Your task to perform on an android device: View the shopping cart on amazon. Add sony triple a to the cart on amazon, then select checkout. Image 0: 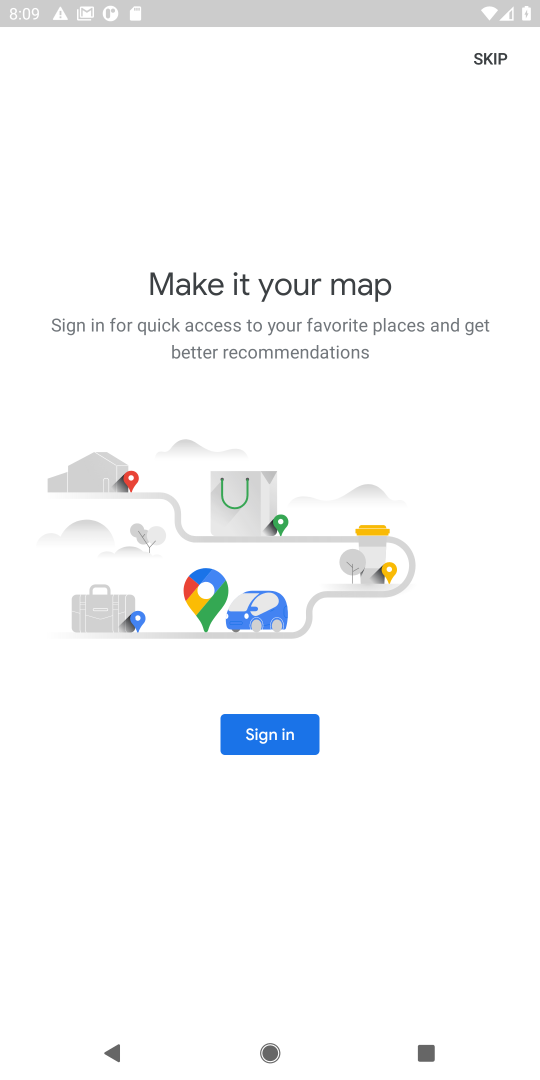
Step 0: press home button
Your task to perform on an android device: View the shopping cart on amazon. Add sony triple a to the cart on amazon, then select checkout. Image 1: 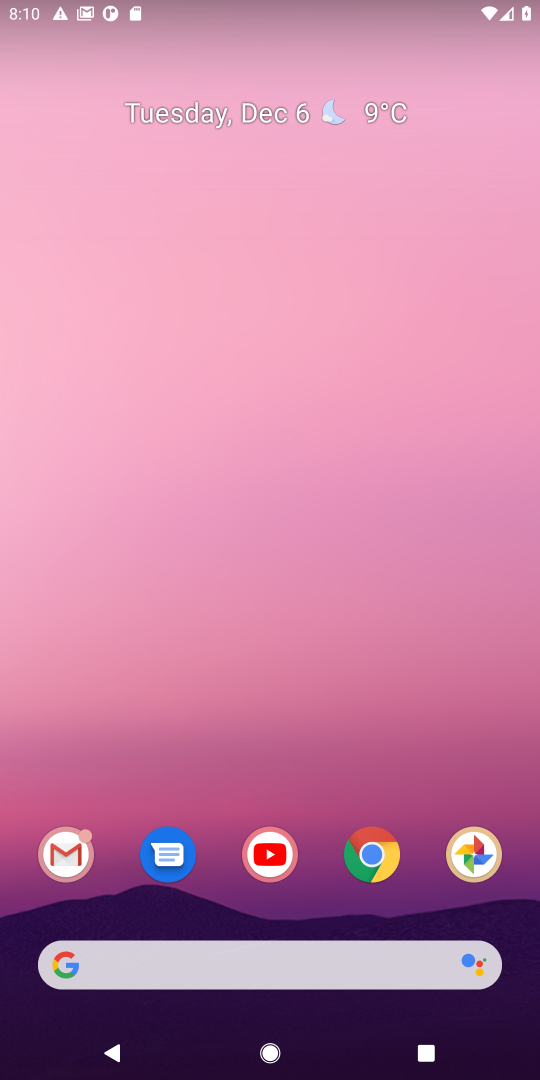
Step 1: click (369, 842)
Your task to perform on an android device: View the shopping cart on amazon. Add sony triple a to the cart on amazon, then select checkout. Image 2: 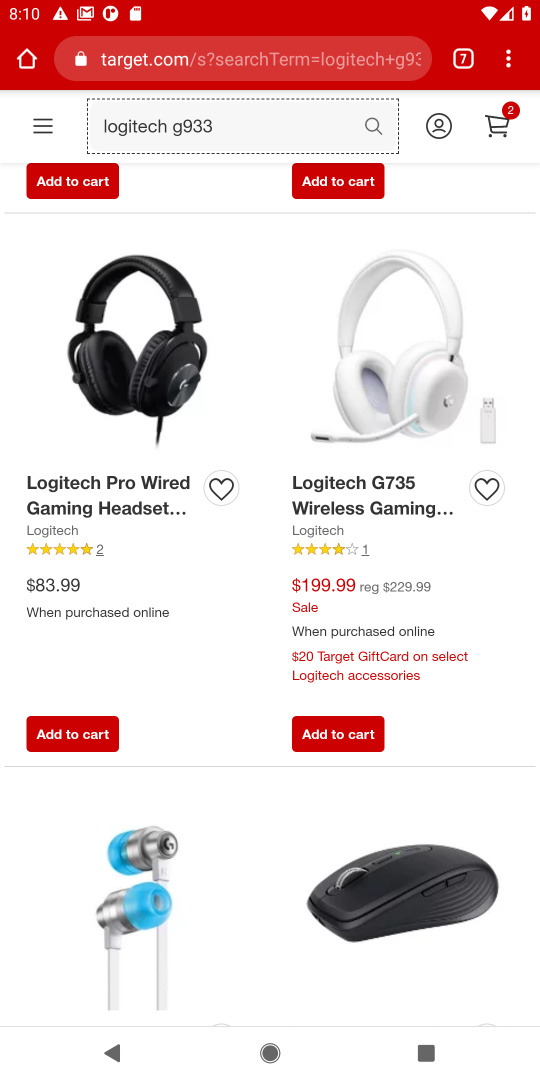
Step 2: click (464, 57)
Your task to perform on an android device: View the shopping cart on amazon. Add sony triple a to the cart on amazon, then select checkout. Image 3: 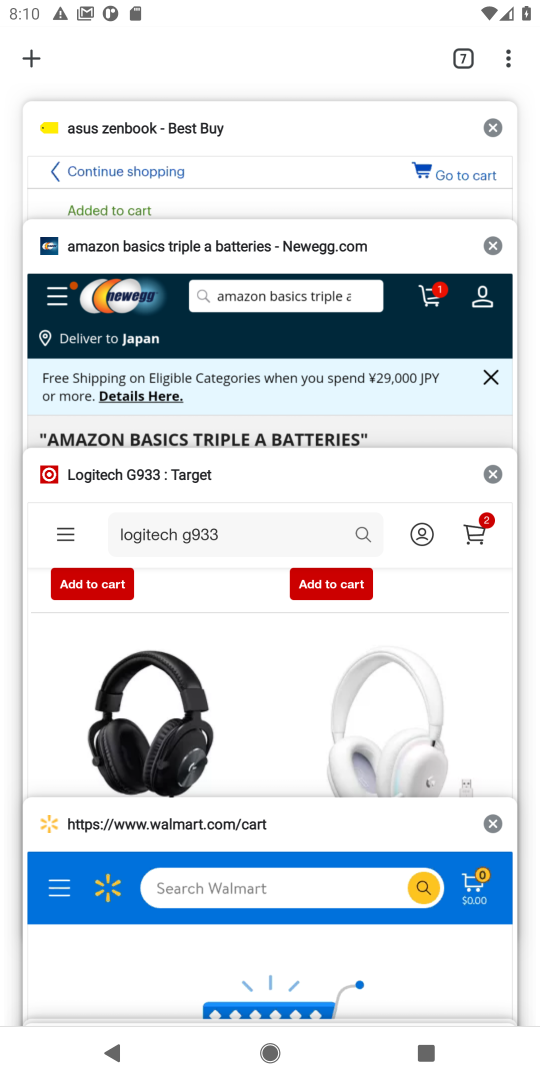
Step 3: click (194, 497)
Your task to perform on an android device: View the shopping cart on amazon. Add sony triple a to the cart on amazon, then select checkout. Image 4: 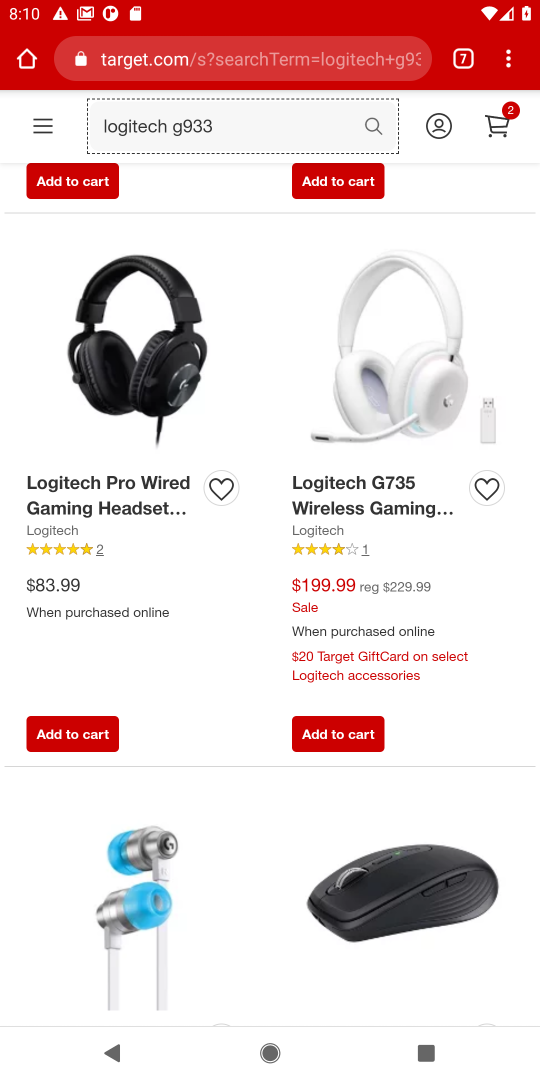
Step 4: click (473, 64)
Your task to perform on an android device: View the shopping cart on amazon. Add sony triple a to the cart on amazon, then select checkout. Image 5: 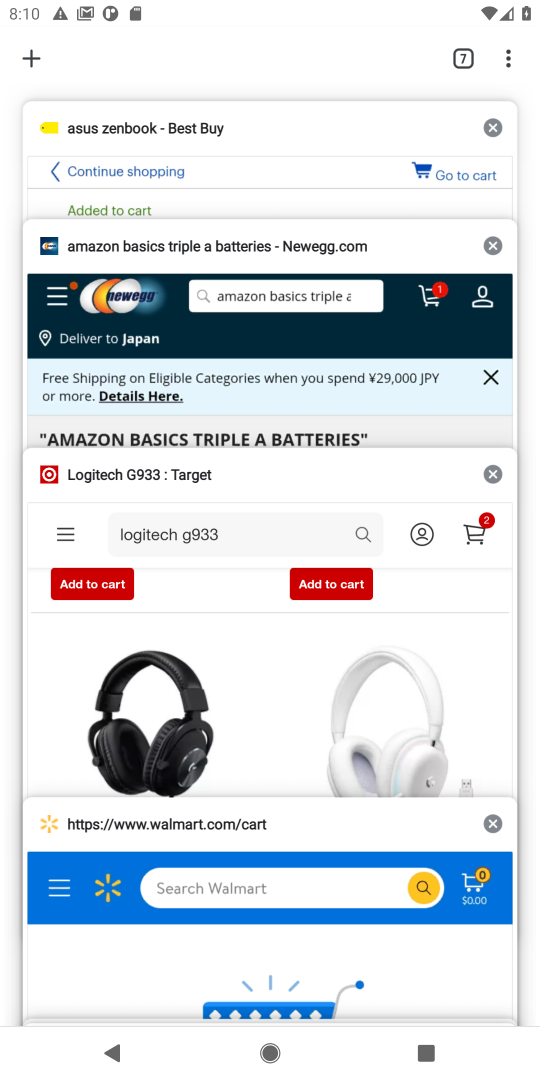
Step 5: drag from (282, 853) to (362, 394)
Your task to perform on an android device: View the shopping cart on amazon. Add sony triple a to the cart on amazon, then select checkout. Image 6: 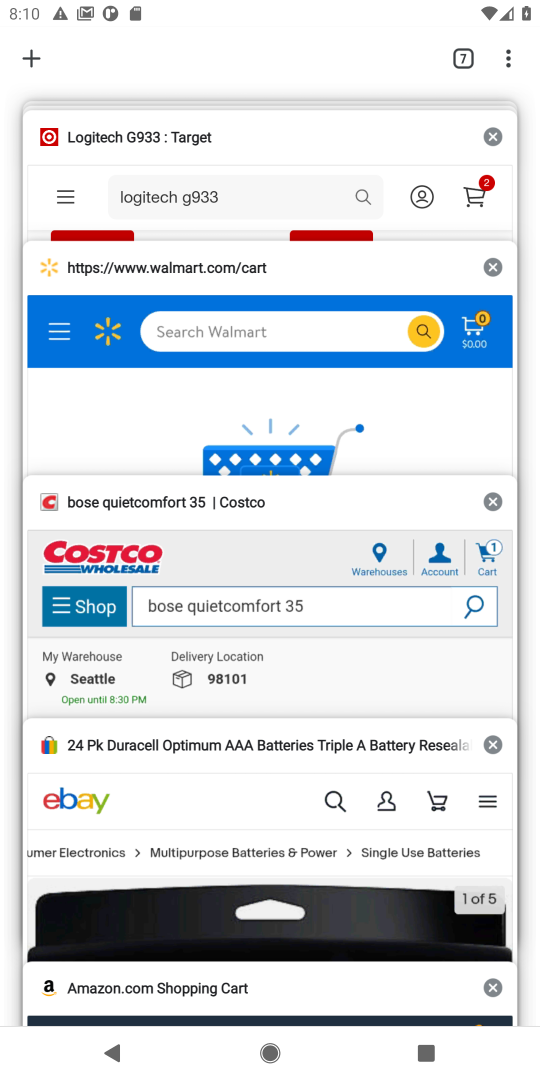
Step 6: drag from (228, 802) to (253, 702)
Your task to perform on an android device: View the shopping cart on amazon. Add sony triple a to the cart on amazon, then select checkout. Image 7: 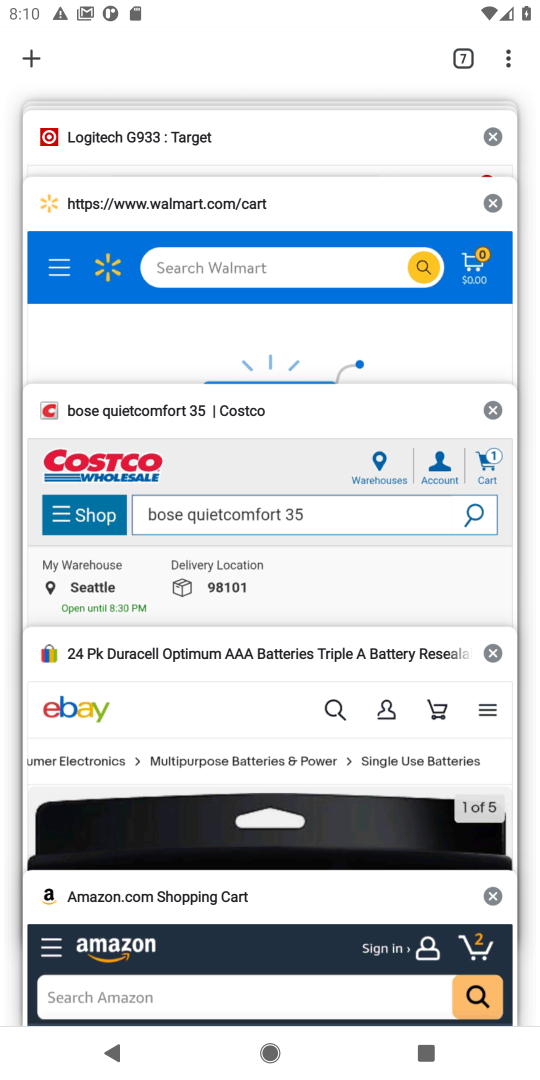
Step 7: click (206, 951)
Your task to perform on an android device: View the shopping cart on amazon. Add sony triple a to the cart on amazon, then select checkout. Image 8: 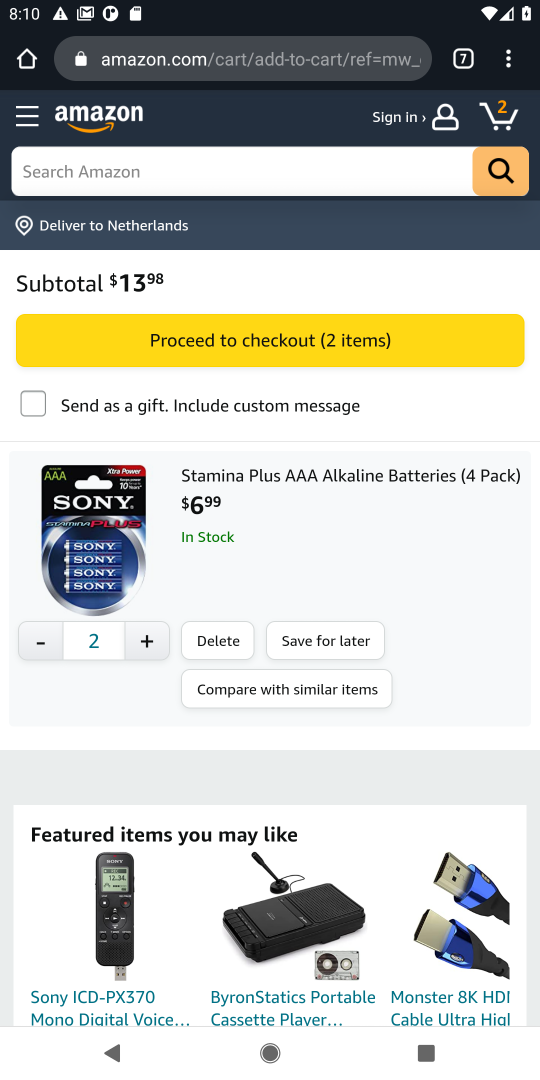
Step 8: click (277, 166)
Your task to perform on an android device: View the shopping cart on amazon. Add sony triple a to the cart on amazon, then select checkout. Image 9: 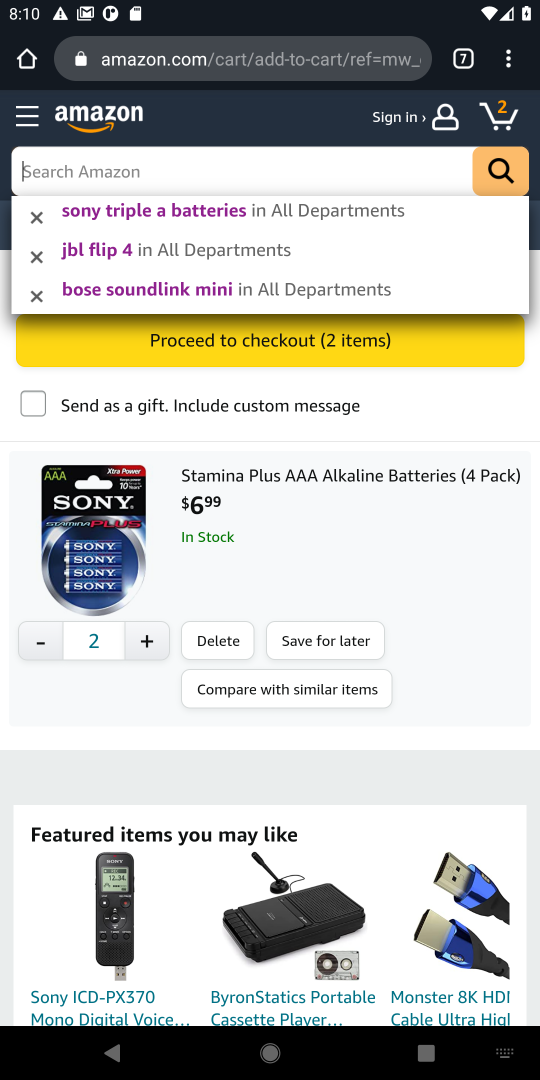
Step 9: click (140, 211)
Your task to perform on an android device: View the shopping cart on amazon. Add sony triple a to the cart on amazon, then select checkout. Image 10: 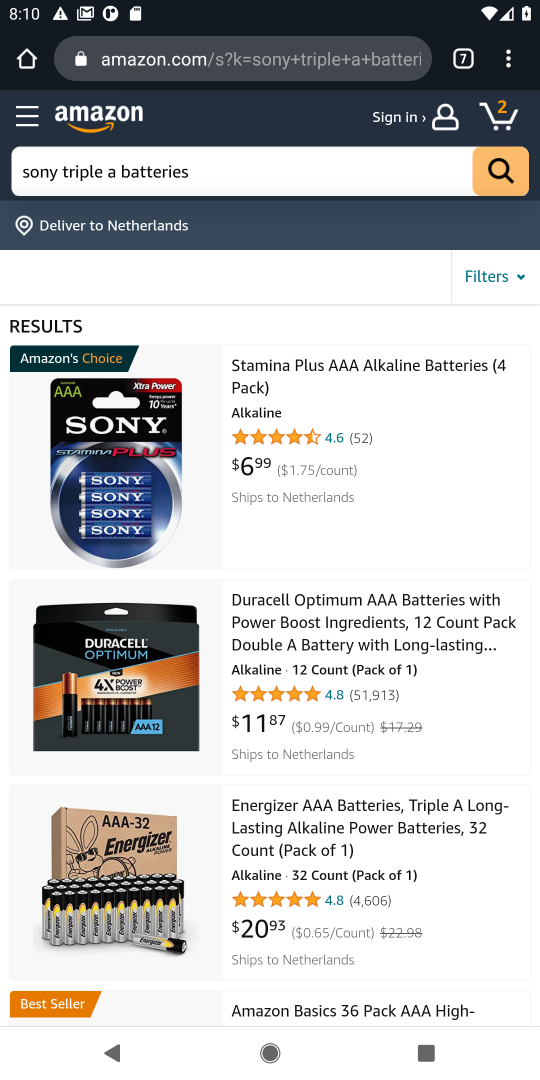
Step 10: click (505, 116)
Your task to perform on an android device: View the shopping cart on amazon. Add sony triple a to the cart on amazon, then select checkout. Image 11: 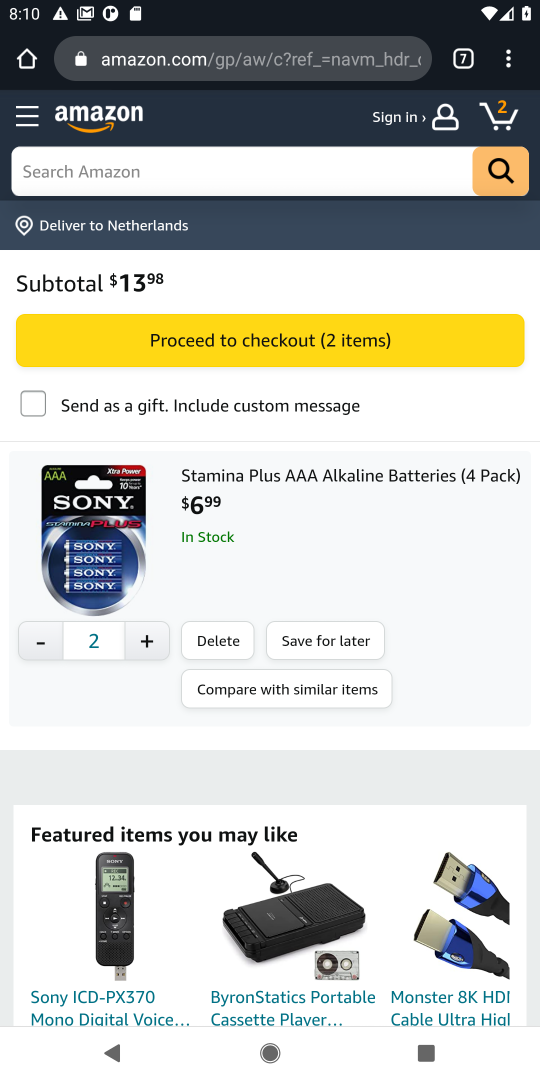
Step 11: press back button
Your task to perform on an android device: View the shopping cart on amazon. Add sony triple a to the cart on amazon, then select checkout. Image 12: 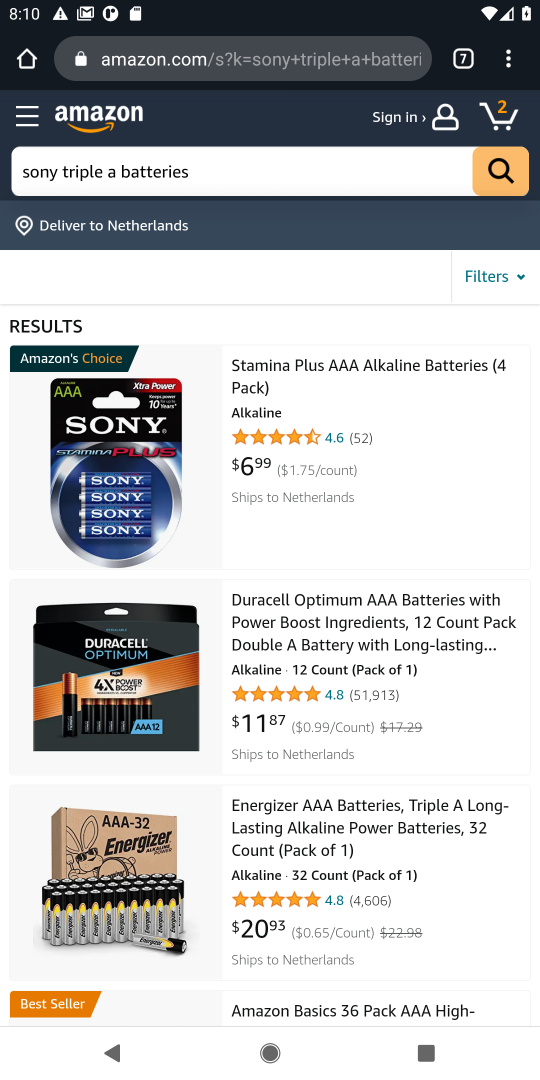
Step 12: click (416, 358)
Your task to perform on an android device: View the shopping cart on amazon. Add sony triple a to the cart on amazon, then select checkout. Image 13: 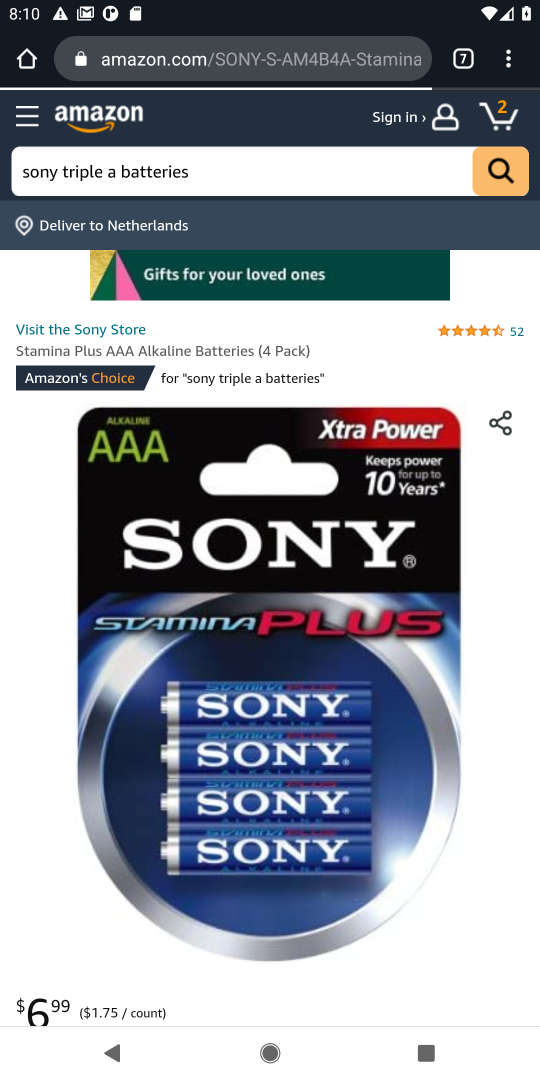
Step 13: drag from (268, 998) to (375, 384)
Your task to perform on an android device: View the shopping cart on amazon. Add sony triple a to the cart on amazon, then select checkout. Image 14: 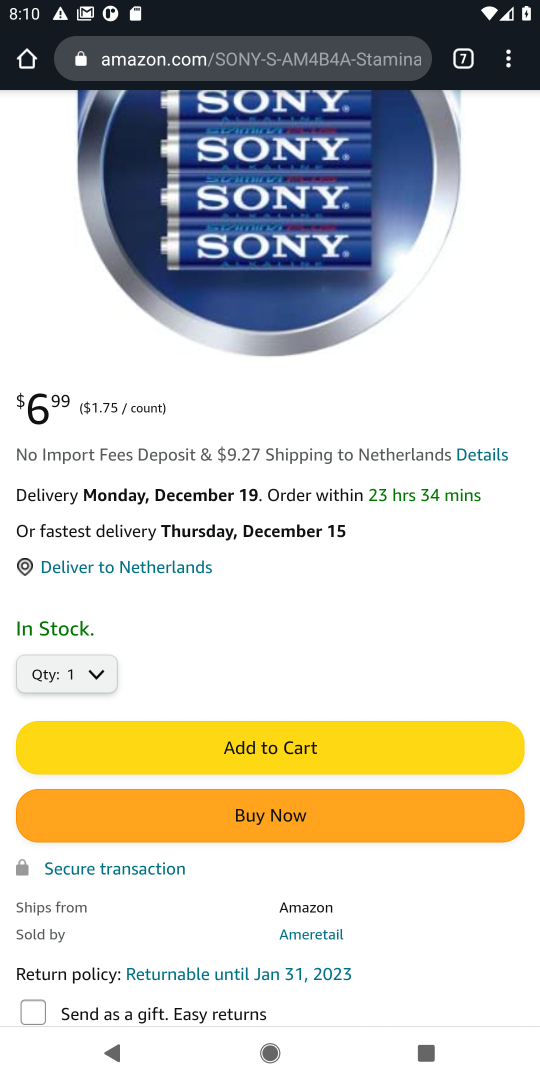
Step 14: click (323, 741)
Your task to perform on an android device: View the shopping cart on amazon. Add sony triple a to the cart on amazon, then select checkout. Image 15: 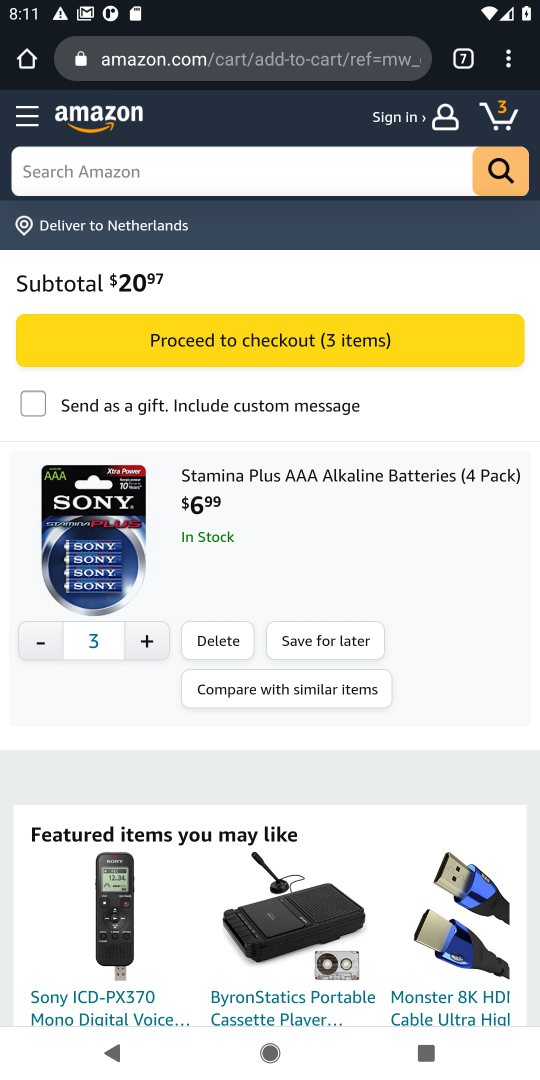
Step 15: click (326, 346)
Your task to perform on an android device: View the shopping cart on amazon. Add sony triple a to the cart on amazon, then select checkout. Image 16: 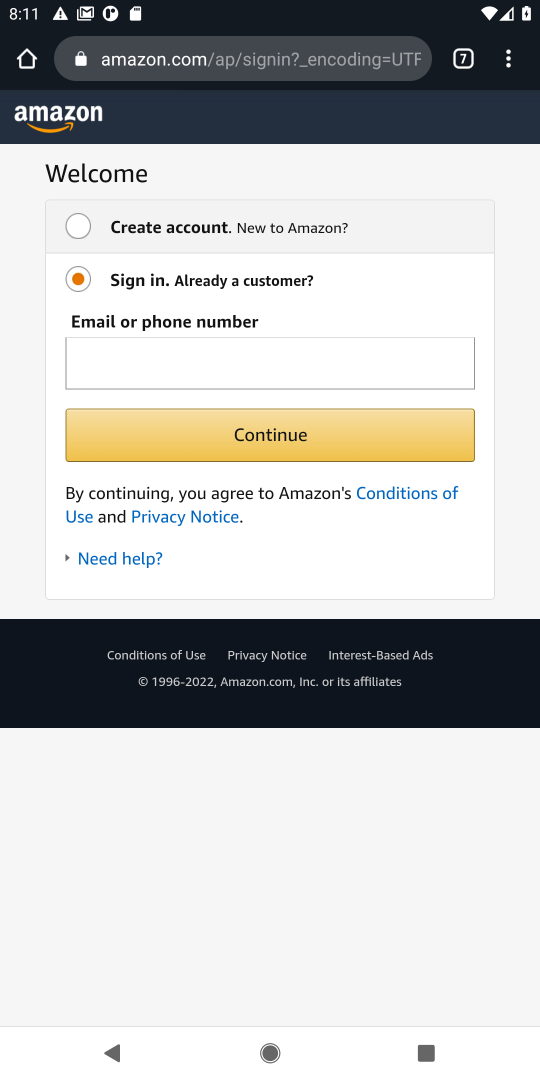
Step 16: task complete